Your task to perform on an android device: Open Google Chrome and click the shortcut for Amazon.com Image 0: 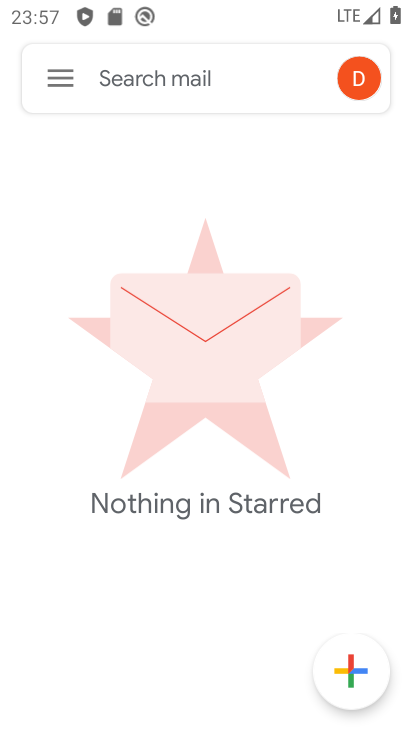
Step 0: press home button
Your task to perform on an android device: Open Google Chrome and click the shortcut for Amazon.com Image 1: 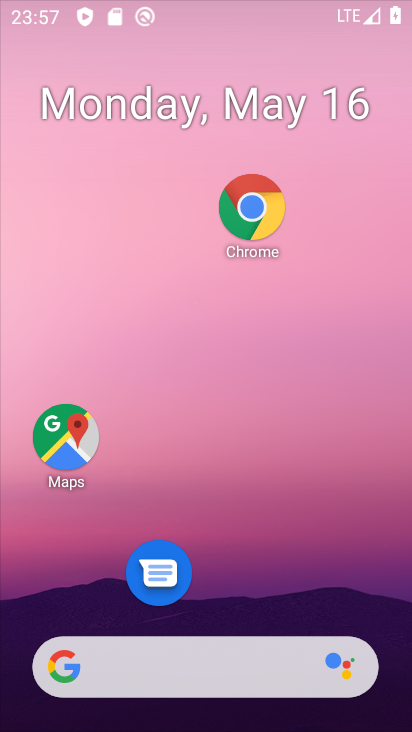
Step 1: drag from (198, 684) to (213, 56)
Your task to perform on an android device: Open Google Chrome and click the shortcut for Amazon.com Image 2: 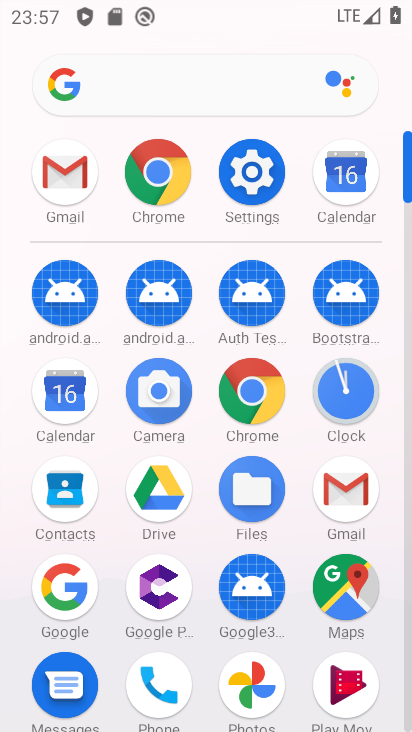
Step 2: click (257, 399)
Your task to perform on an android device: Open Google Chrome and click the shortcut for Amazon.com Image 3: 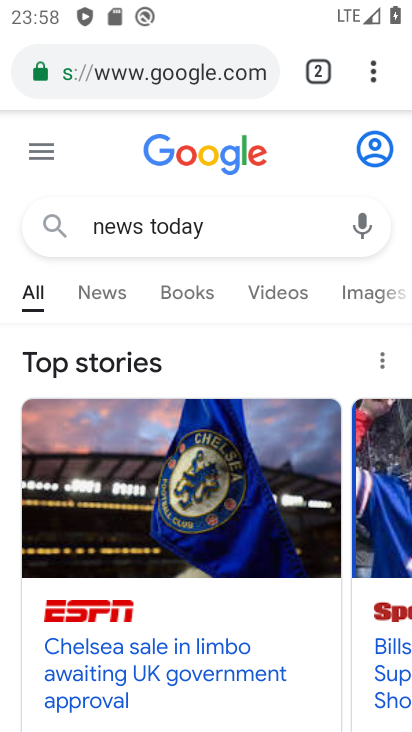
Step 3: click (251, 70)
Your task to perform on an android device: Open Google Chrome and click the shortcut for Amazon.com Image 4: 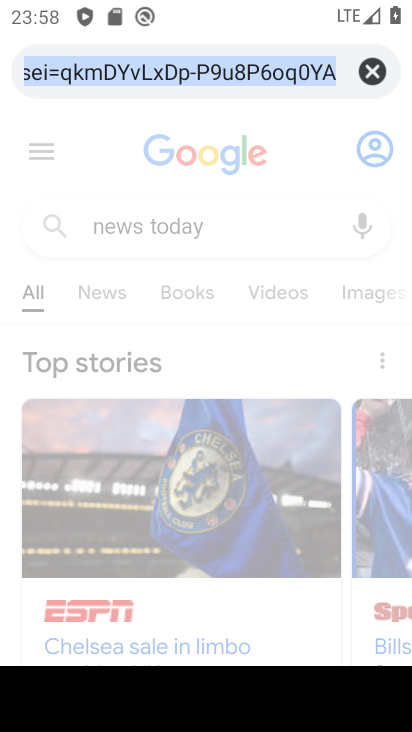
Step 4: click (385, 59)
Your task to perform on an android device: Open Google Chrome and click the shortcut for Amazon.com Image 5: 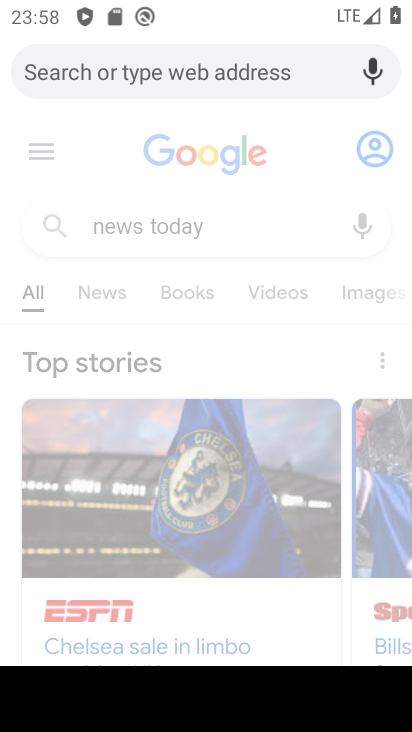
Step 5: type "amazon"
Your task to perform on an android device: Open Google Chrome and click the shortcut for Amazon.com Image 6: 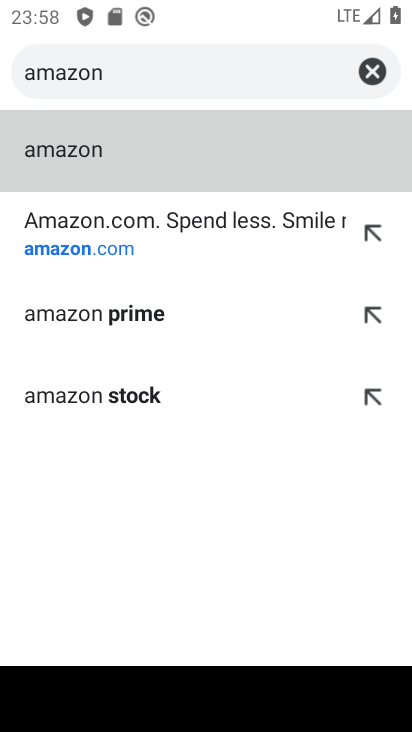
Step 6: click (221, 226)
Your task to perform on an android device: Open Google Chrome and click the shortcut for Amazon.com Image 7: 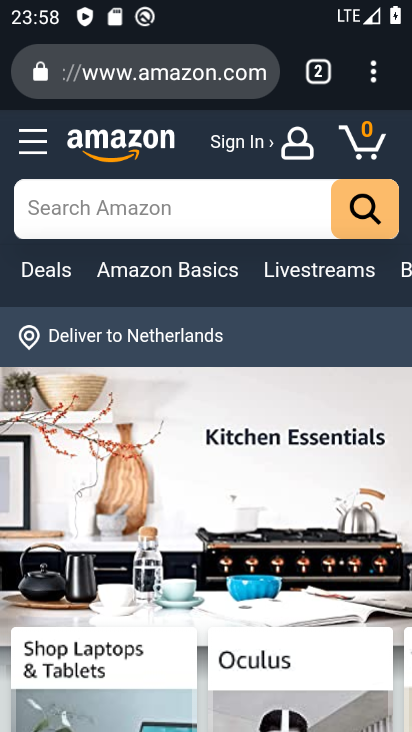
Step 7: task complete